Your task to perform on an android device: Go to location settings Image 0: 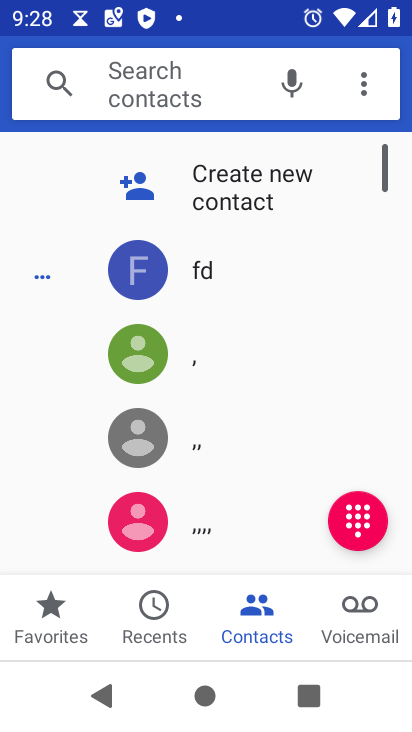
Step 0: press home button
Your task to perform on an android device: Go to location settings Image 1: 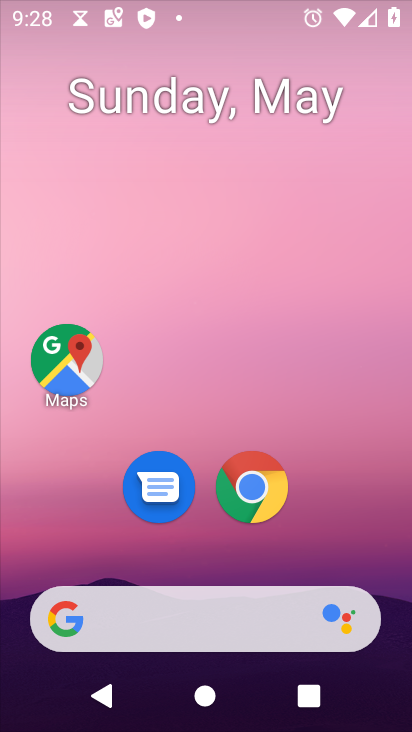
Step 1: drag from (307, 485) to (369, 26)
Your task to perform on an android device: Go to location settings Image 2: 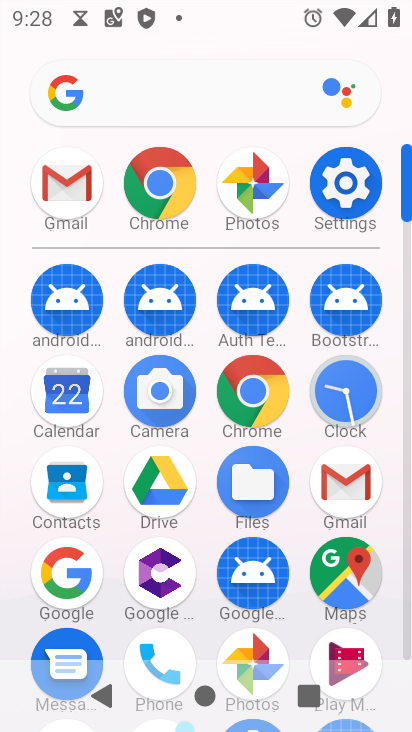
Step 2: click (360, 192)
Your task to perform on an android device: Go to location settings Image 3: 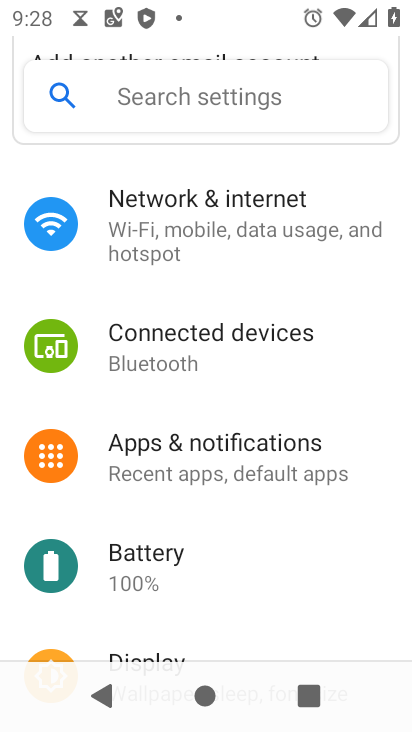
Step 3: drag from (250, 577) to (305, 171)
Your task to perform on an android device: Go to location settings Image 4: 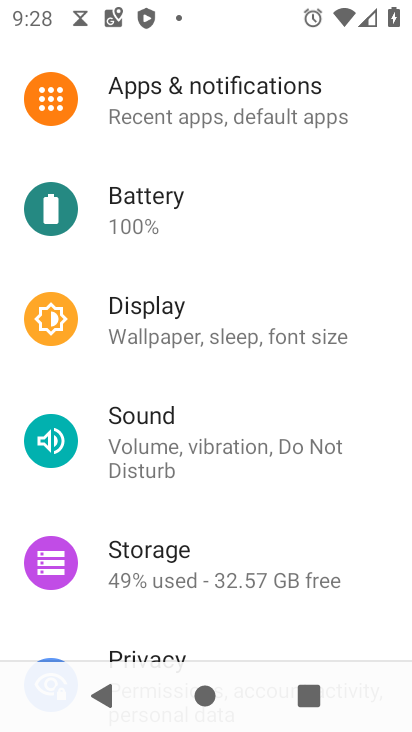
Step 4: drag from (271, 563) to (340, 220)
Your task to perform on an android device: Go to location settings Image 5: 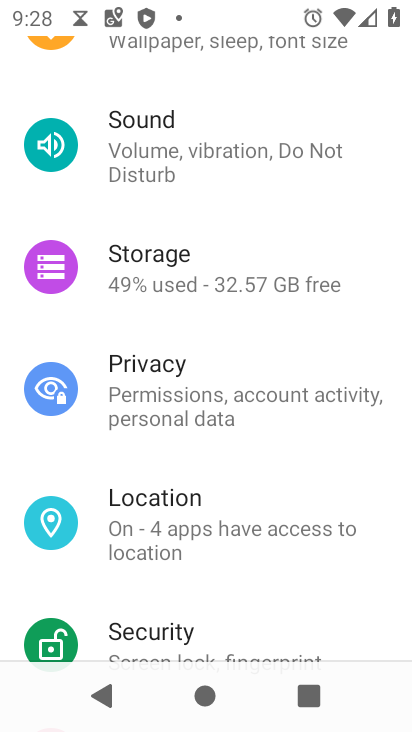
Step 5: click (239, 521)
Your task to perform on an android device: Go to location settings Image 6: 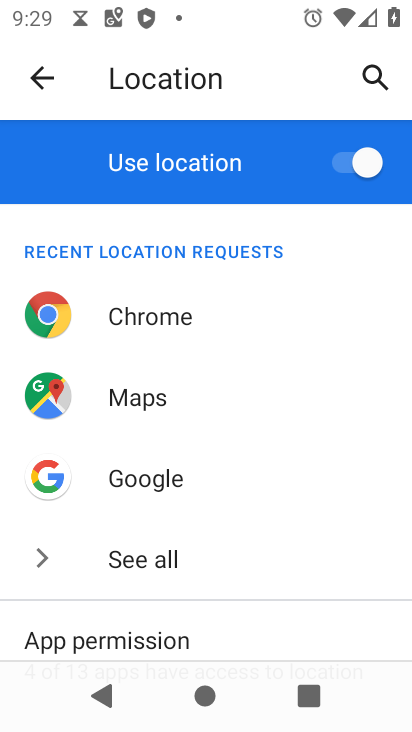
Step 6: task complete